Your task to perform on an android device: find photos in the google photos app Image 0: 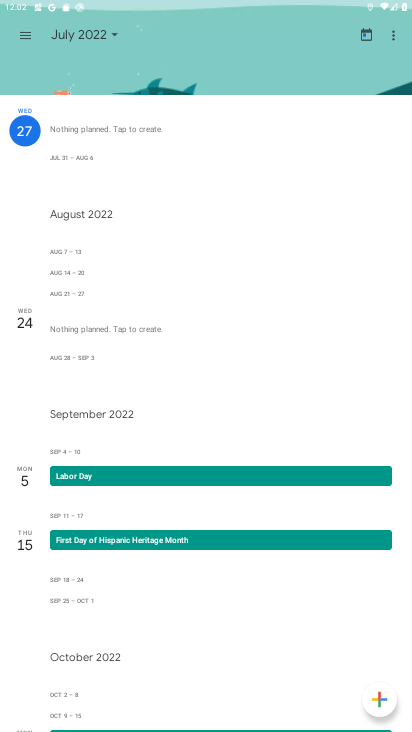
Step 0: press home button
Your task to perform on an android device: find photos in the google photos app Image 1: 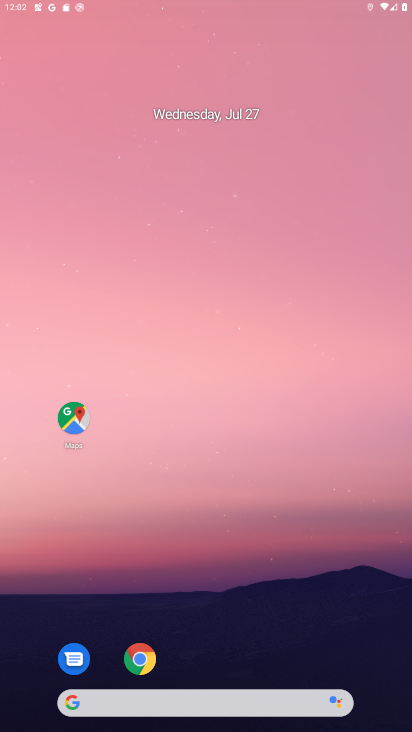
Step 1: drag from (261, 695) to (377, 2)
Your task to perform on an android device: find photos in the google photos app Image 2: 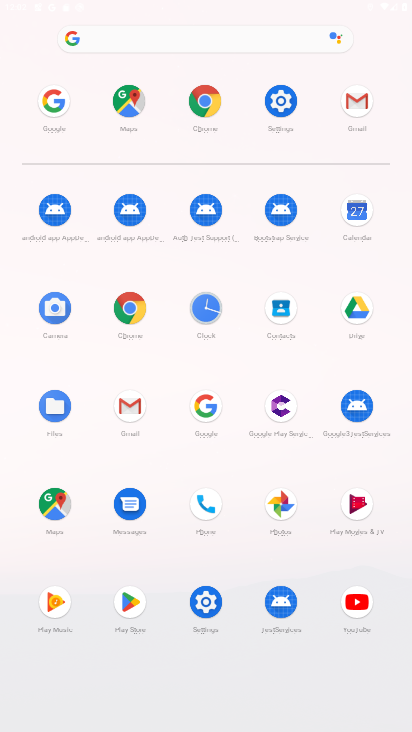
Step 2: click (269, 499)
Your task to perform on an android device: find photos in the google photos app Image 3: 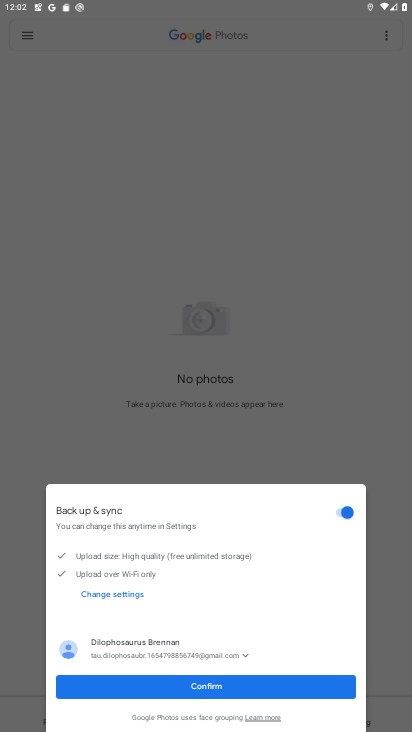
Step 3: click (233, 681)
Your task to perform on an android device: find photos in the google photos app Image 4: 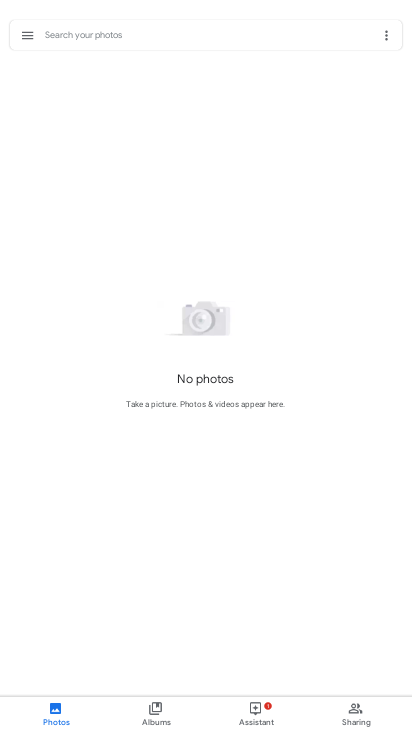
Step 4: task complete